Your task to perform on an android device: open app "Chime – Mobile Banking" Image 0: 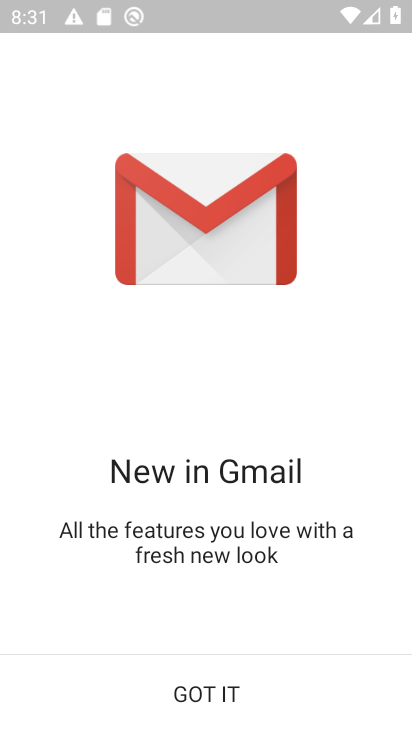
Step 0: press home button
Your task to perform on an android device: open app "Chime – Mobile Banking" Image 1: 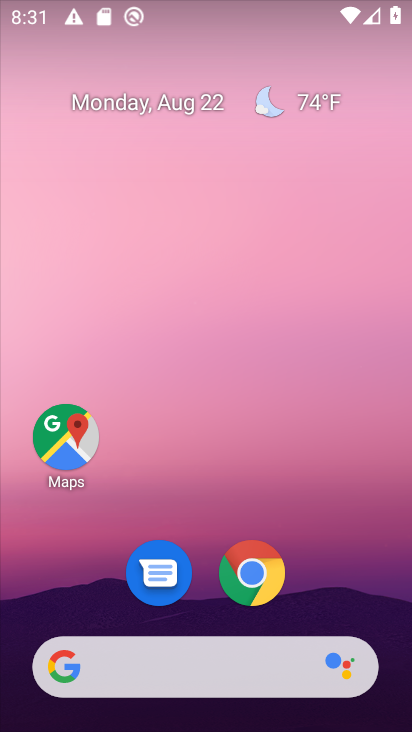
Step 1: drag from (188, 622) to (198, 160)
Your task to perform on an android device: open app "Chime – Mobile Banking" Image 2: 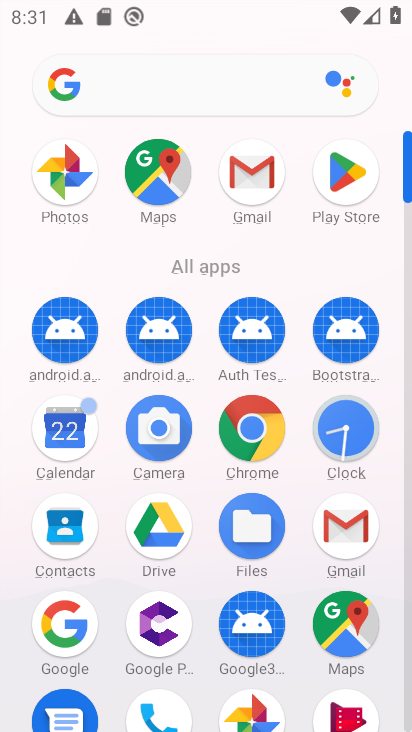
Step 2: click (363, 195)
Your task to perform on an android device: open app "Chime – Mobile Banking" Image 3: 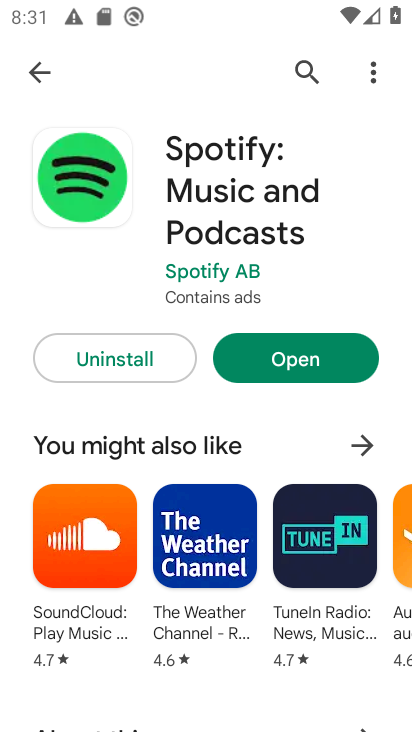
Step 3: click (31, 56)
Your task to perform on an android device: open app "Chime – Mobile Banking" Image 4: 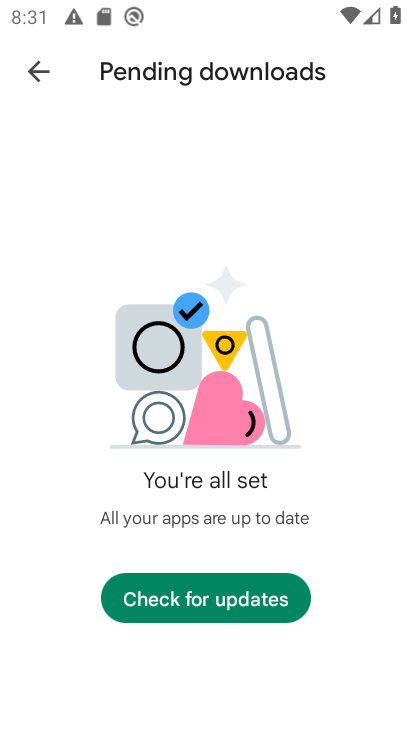
Step 4: click (39, 69)
Your task to perform on an android device: open app "Chime – Mobile Banking" Image 5: 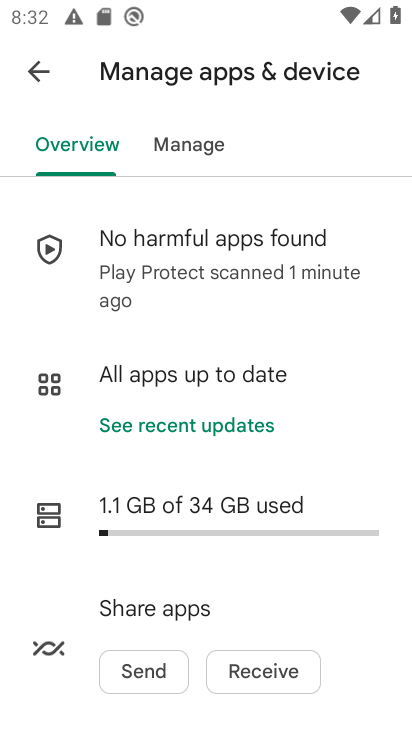
Step 5: click (40, 66)
Your task to perform on an android device: open app "Chime – Mobile Banking" Image 6: 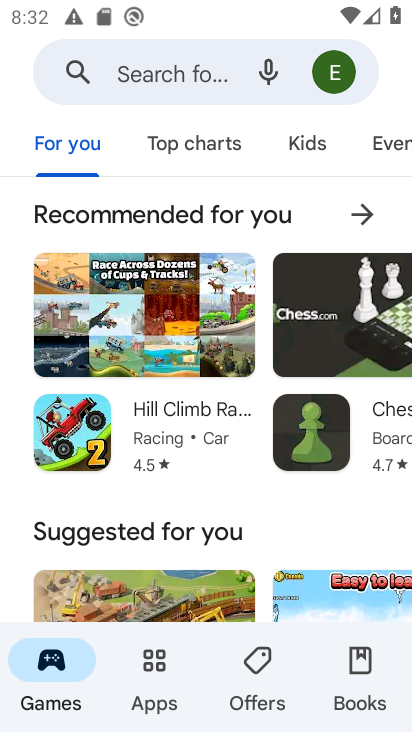
Step 6: click (168, 60)
Your task to perform on an android device: open app "Chime – Mobile Banking" Image 7: 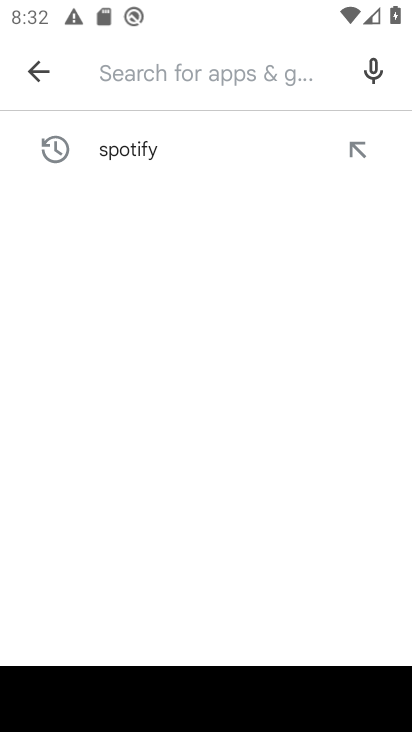
Step 7: type "Chime"
Your task to perform on an android device: open app "Chime – Mobile Banking" Image 8: 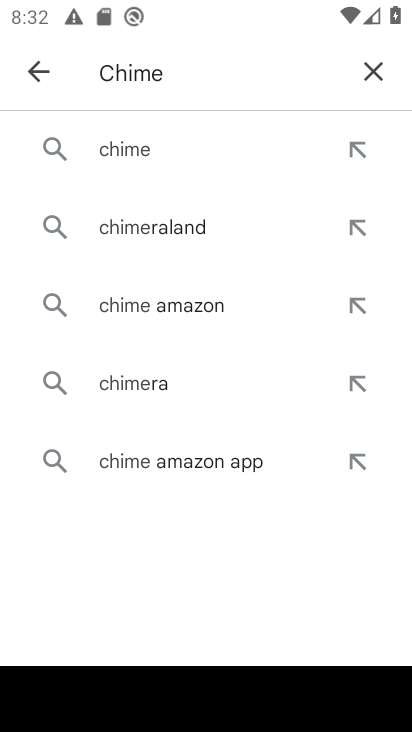
Step 8: click (125, 142)
Your task to perform on an android device: open app "Chime – Mobile Banking" Image 9: 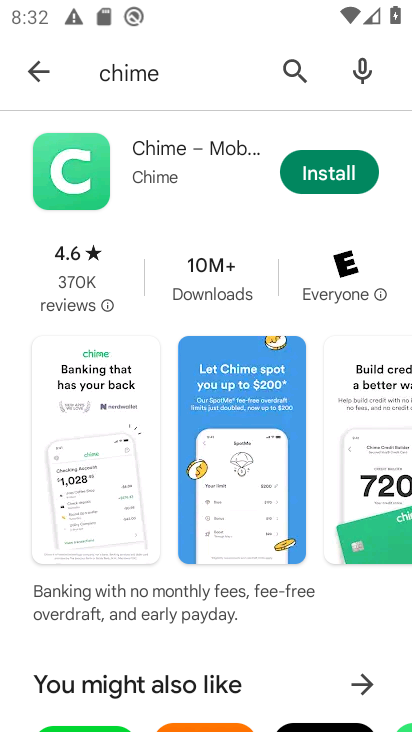
Step 9: task complete